Your task to perform on an android device: check data usage Image 0: 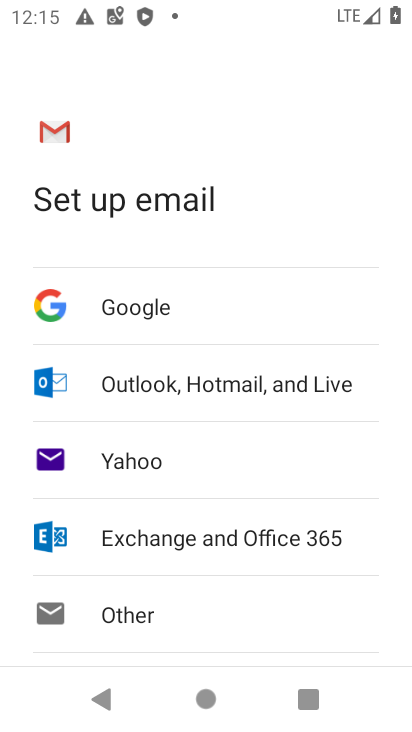
Step 0: press home button
Your task to perform on an android device: check data usage Image 1: 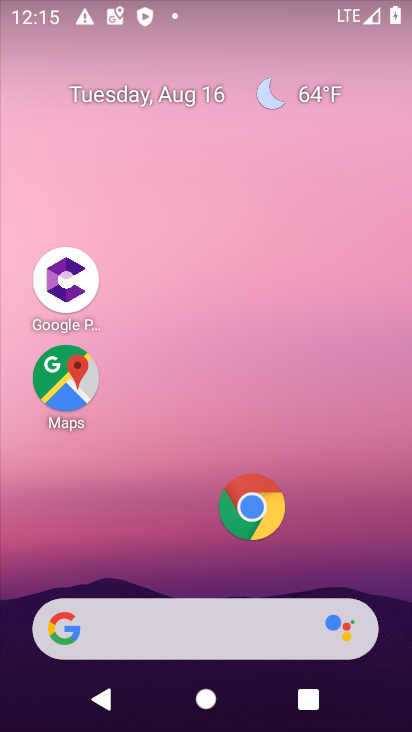
Step 1: drag from (147, 543) to (112, 101)
Your task to perform on an android device: check data usage Image 2: 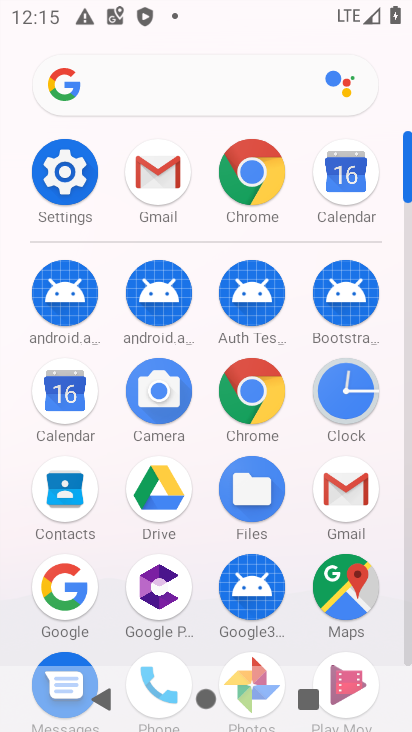
Step 2: click (66, 167)
Your task to perform on an android device: check data usage Image 3: 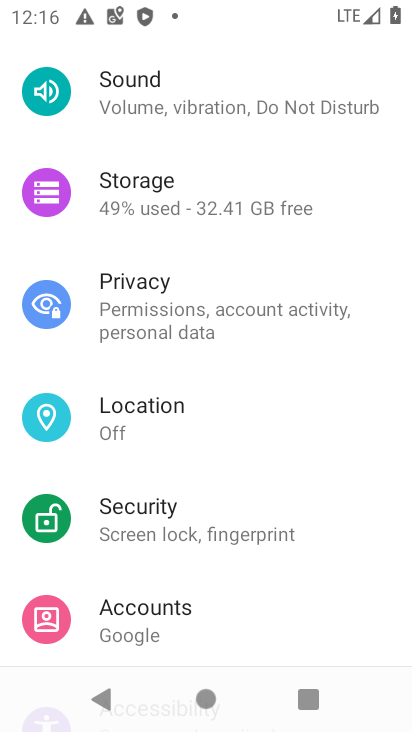
Step 3: drag from (216, 132) to (174, 622)
Your task to perform on an android device: check data usage Image 4: 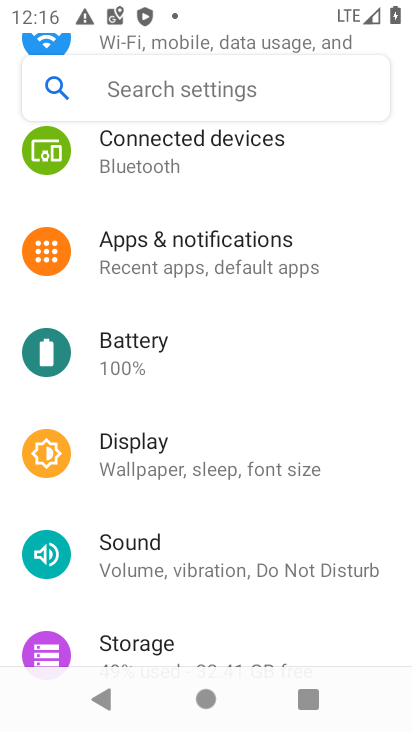
Step 4: drag from (237, 326) to (162, 712)
Your task to perform on an android device: check data usage Image 5: 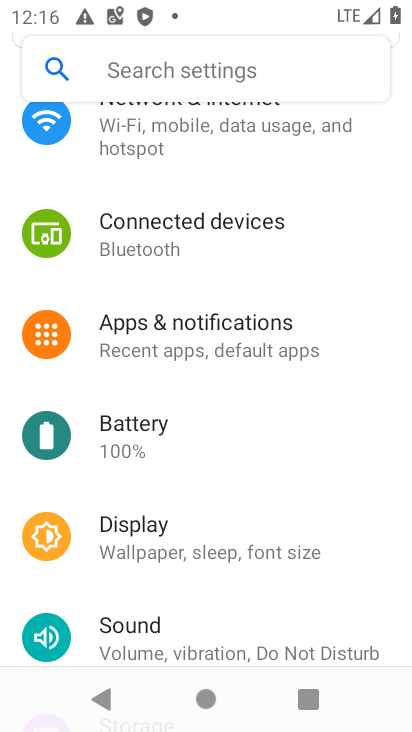
Step 5: drag from (225, 269) to (193, 587)
Your task to perform on an android device: check data usage Image 6: 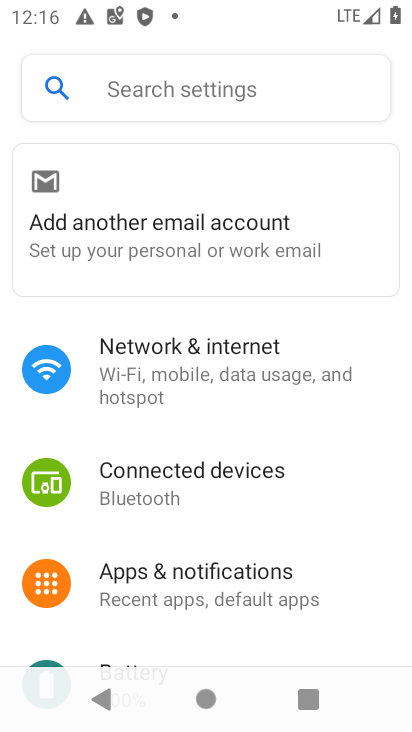
Step 6: click (162, 344)
Your task to perform on an android device: check data usage Image 7: 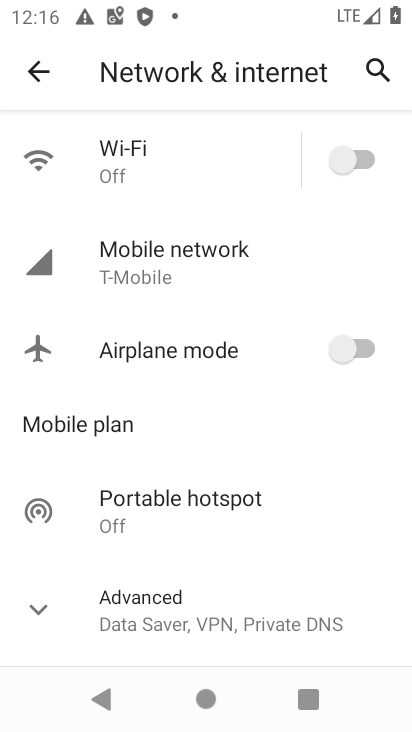
Step 7: drag from (196, 161) to (185, 494)
Your task to perform on an android device: check data usage Image 8: 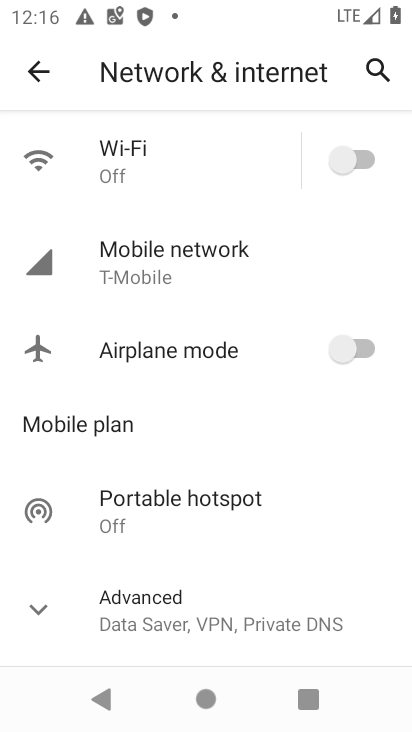
Step 8: drag from (212, 541) to (184, 143)
Your task to perform on an android device: check data usage Image 9: 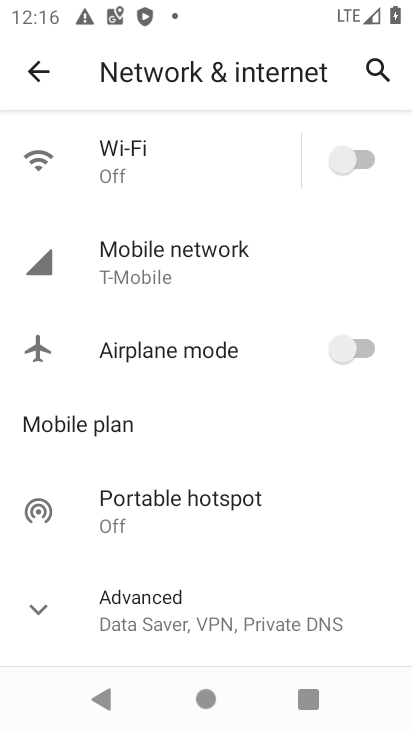
Step 9: click (161, 253)
Your task to perform on an android device: check data usage Image 10: 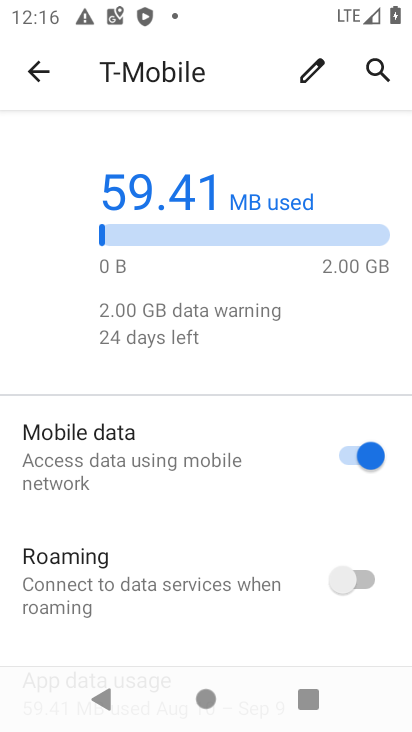
Step 10: task complete